Your task to perform on an android device: change the clock display to digital Image 0: 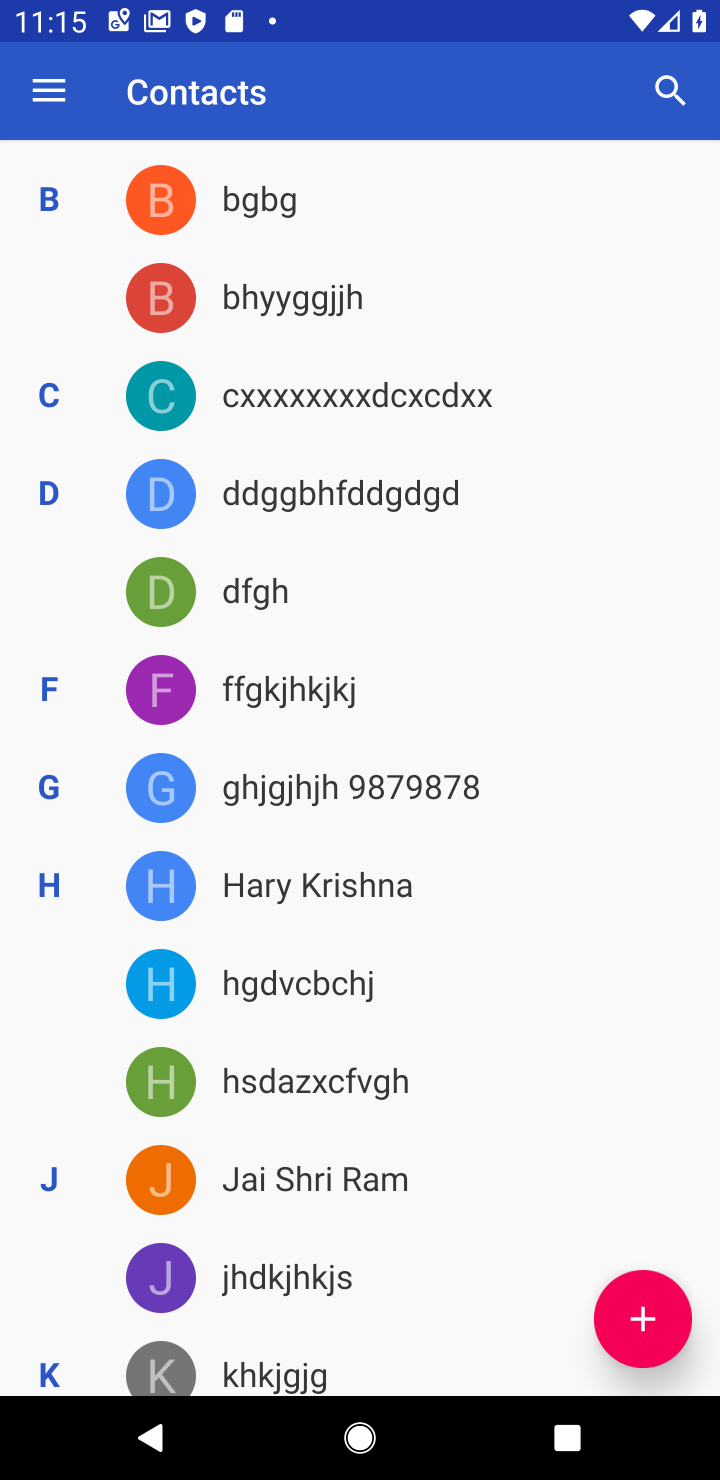
Step 0: press home button
Your task to perform on an android device: change the clock display to digital Image 1: 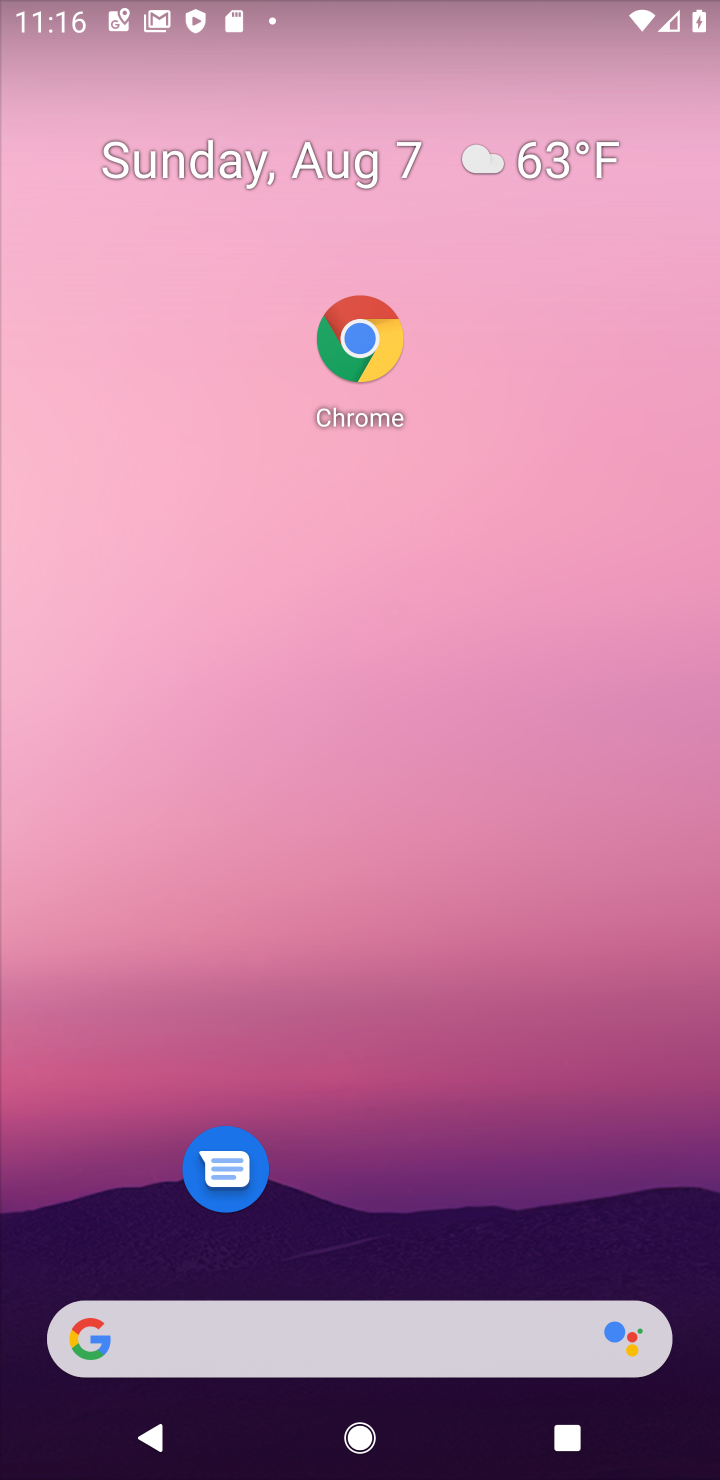
Step 1: drag from (368, 1263) to (372, 218)
Your task to perform on an android device: change the clock display to digital Image 2: 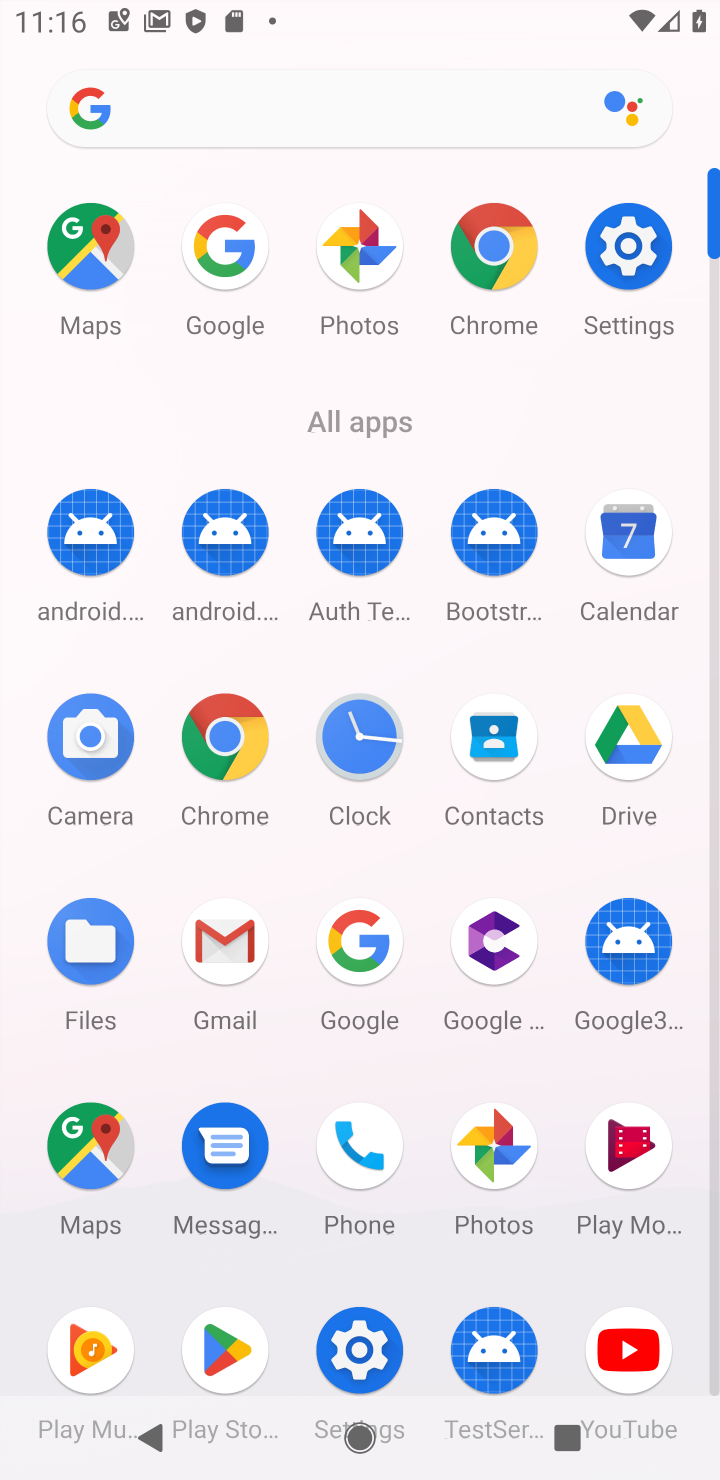
Step 2: click (349, 743)
Your task to perform on an android device: change the clock display to digital Image 3: 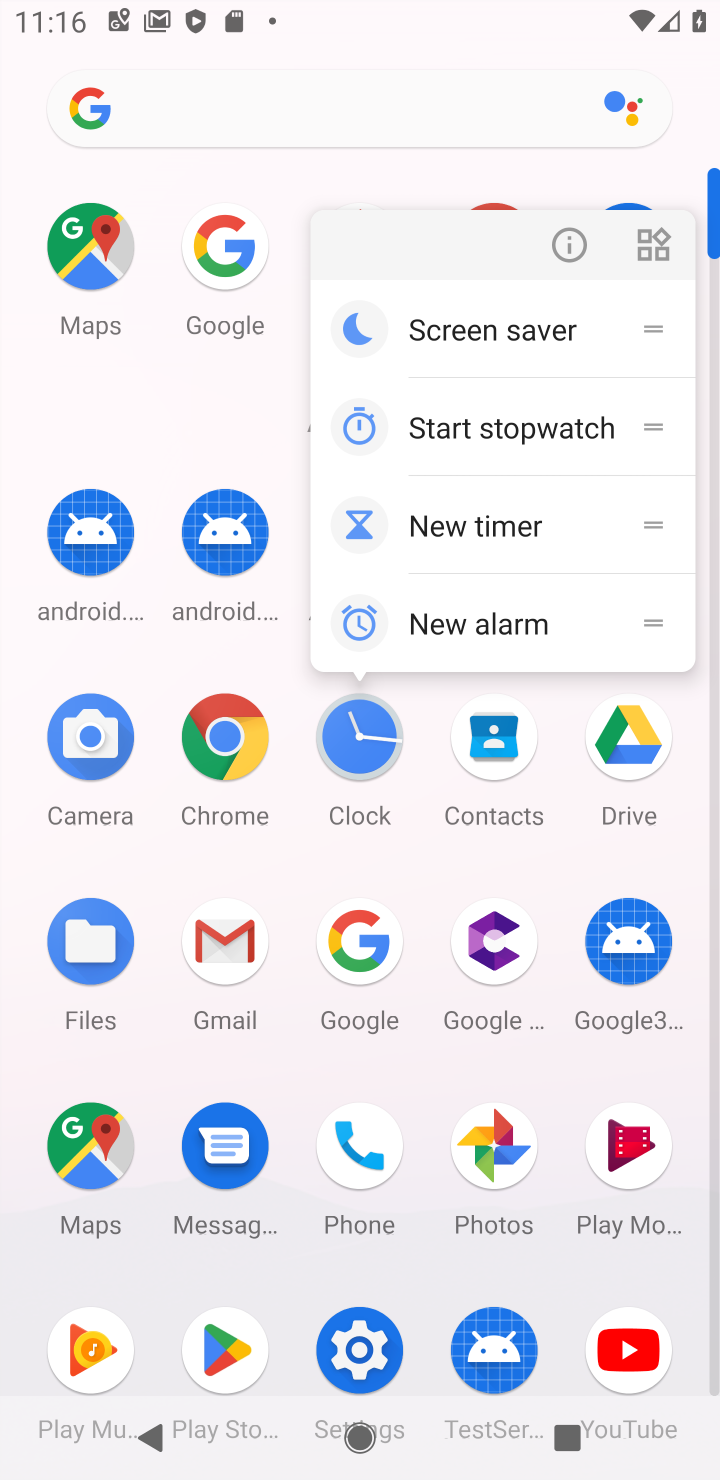
Step 3: click (404, 730)
Your task to perform on an android device: change the clock display to digital Image 4: 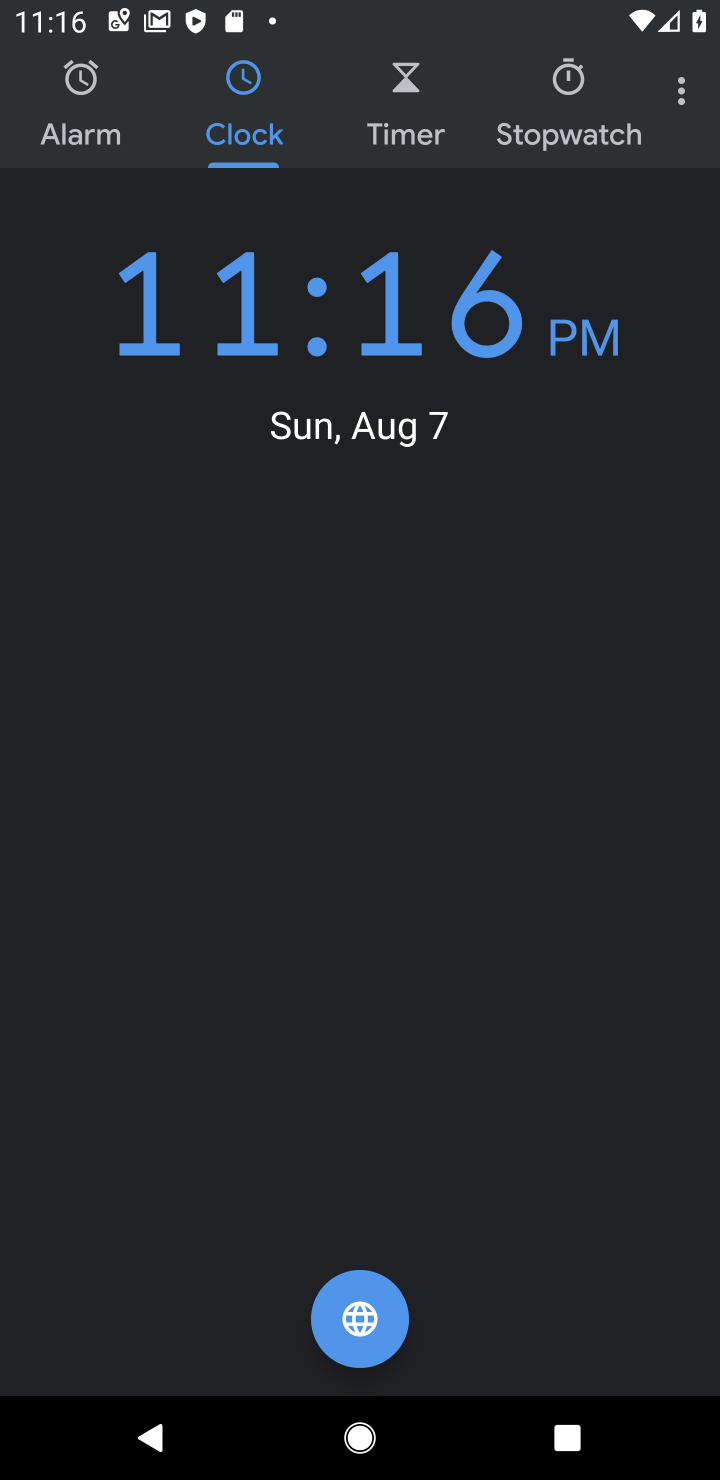
Step 4: drag from (683, 88) to (509, 177)
Your task to perform on an android device: change the clock display to digital Image 5: 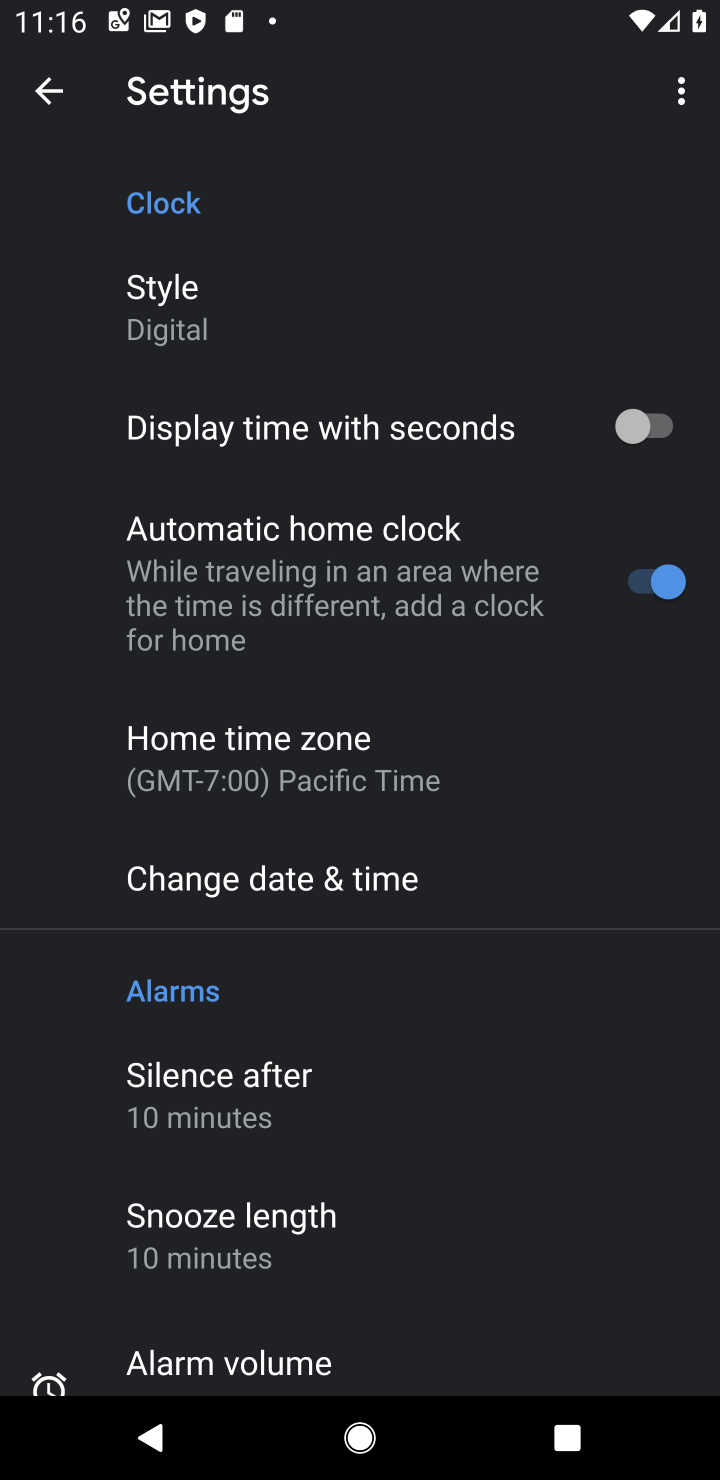
Step 5: click (172, 295)
Your task to perform on an android device: change the clock display to digital Image 6: 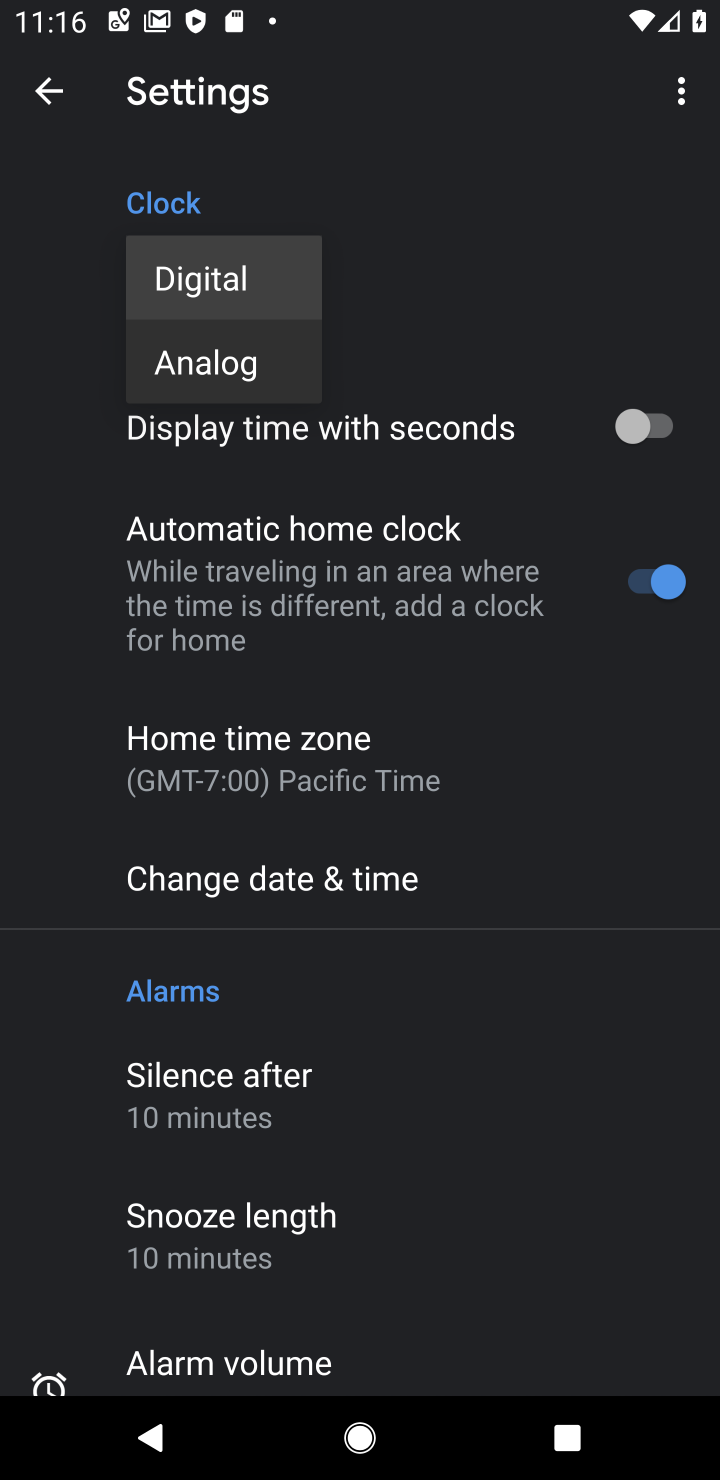
Step 6: click (197, 292)
Your task to perform on an android device: change the clock display to digital Image 7: 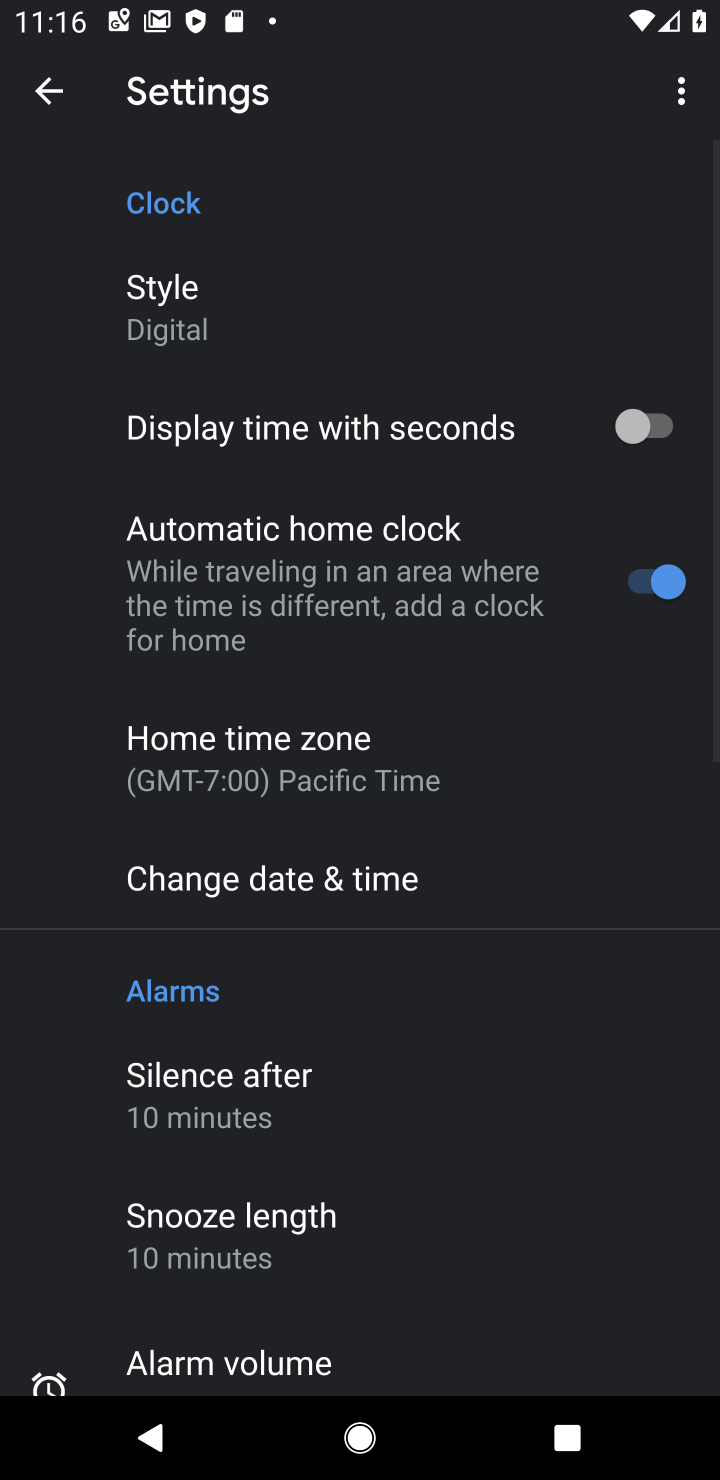
Step 7: task complete